Your task to perform on an android device: What's on my calendar today? Image 0: 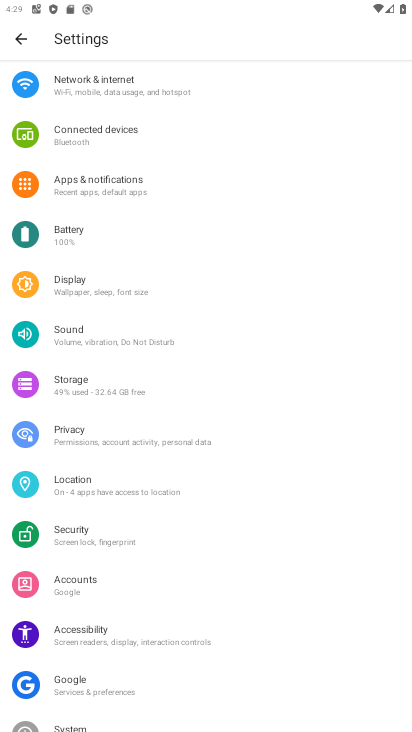
Step 0: press home button
Your task to perform on an android device: What's on my calendar today? Image 1: 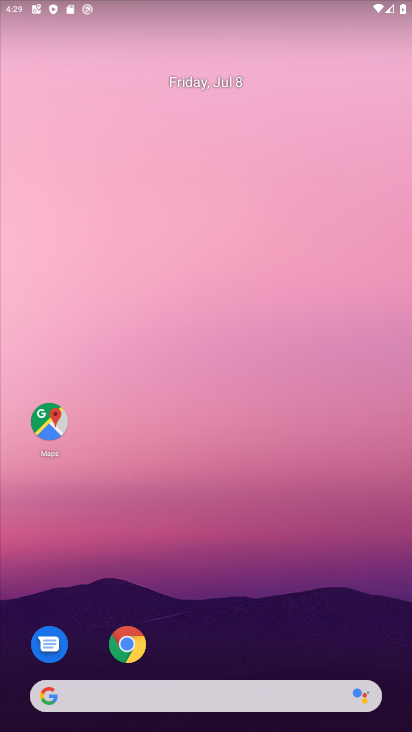
Step 1: drag from (213, 658) to (217, 106)
Your task to perform on an android device: What's on my calendar today? Image 2: 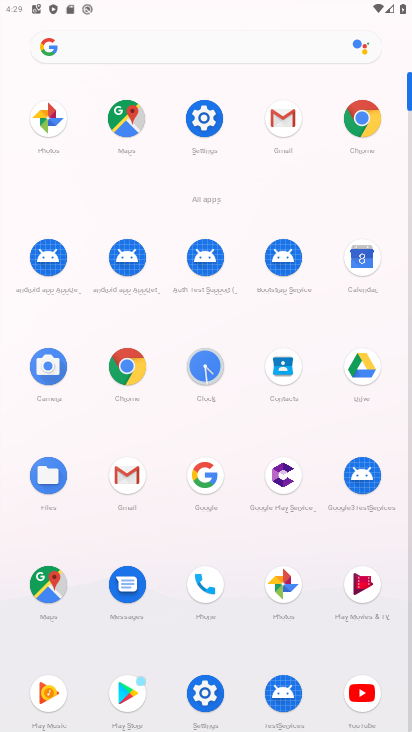
Step 2: click (364, 257)
Your task to perform on an android device: What's on my calendar today? Image 3: 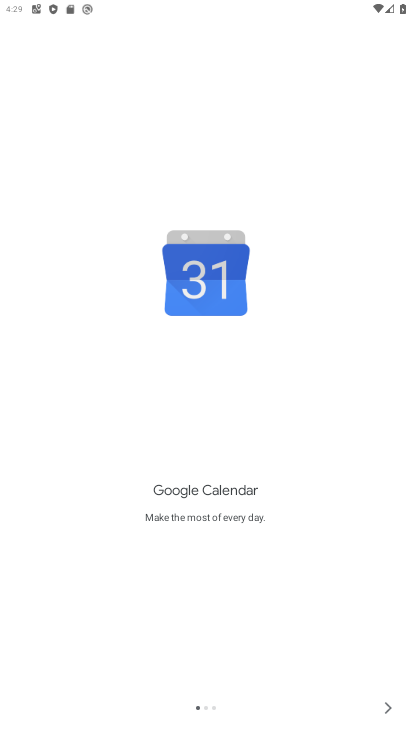
Step 3: click (383, 706)
Your task to perform on an android device: What's on my calendar today? Image 4: 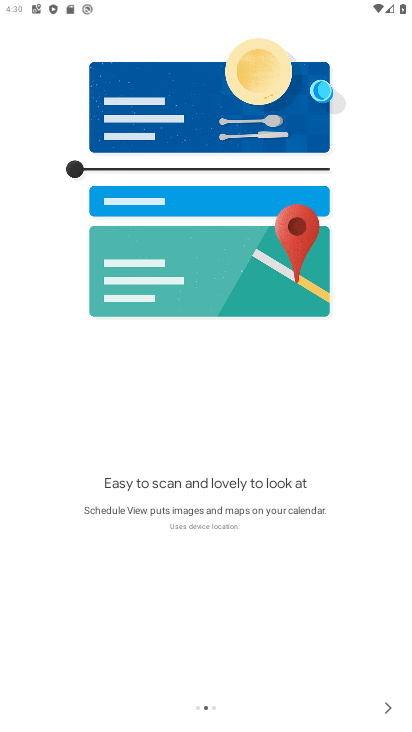
Step 4: click (384, 706)
Your task to perform on an android device: What's on my calendar today? Image 5: 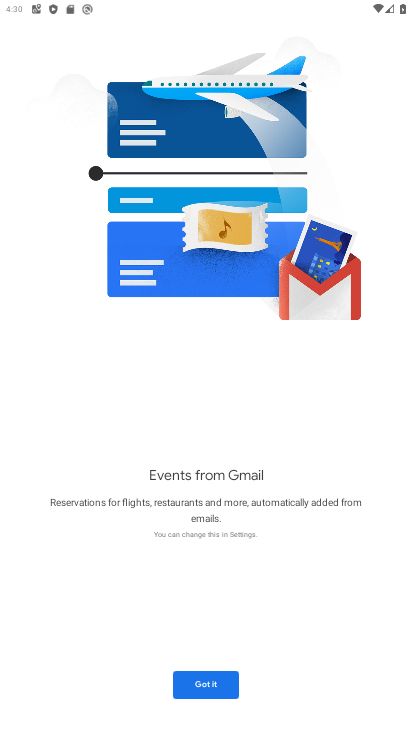
Step 5: click (206, 680)
Your task to perform on an android device: What's on my calendar today? Image 6: 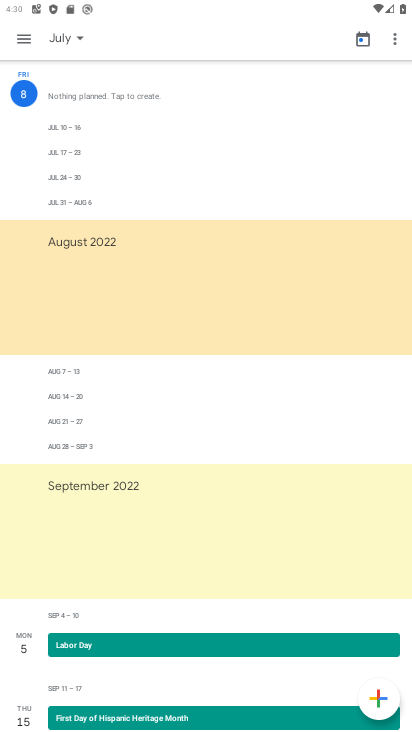
Step 6: click (28, 32)
Your task to perform on an android device: What's on my calendar today? Image 7: 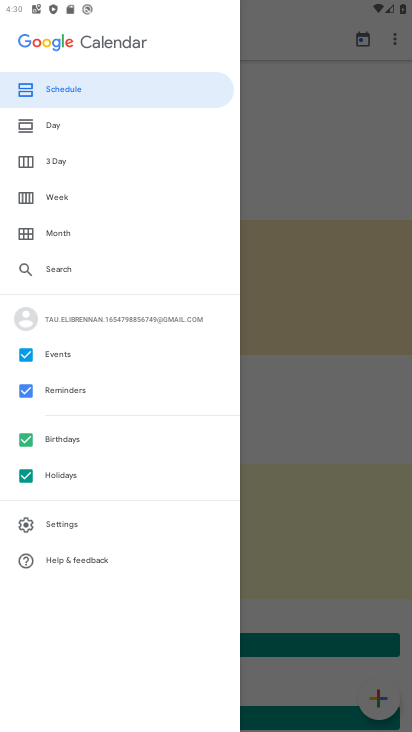
Step 7: click (24, 386)
Your task to perform on an android device: What's on my calendar today? Image 8: 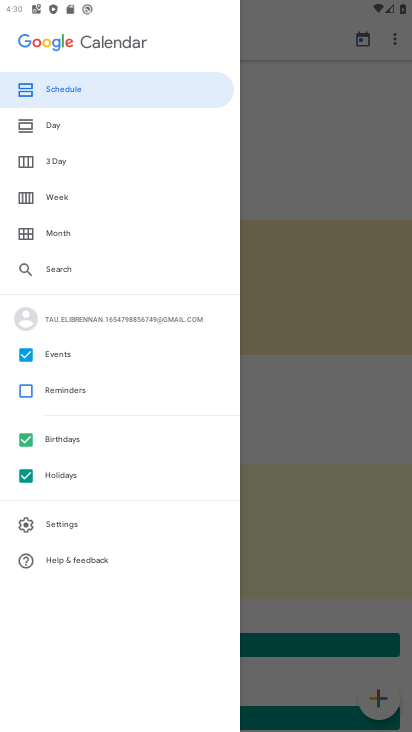
Step 8: click (21, 439)
Your task to perform on an android device: What's on my calendar today? Image 9: 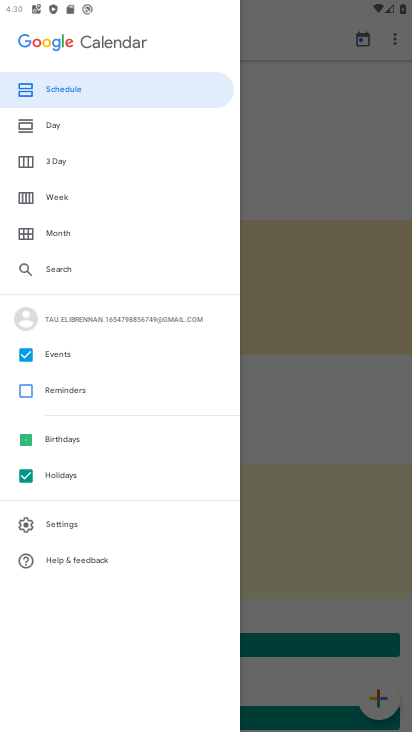
Step 9: click (28, 477)
Your task to perform on an android device: What's on my calendar today? Image 10: 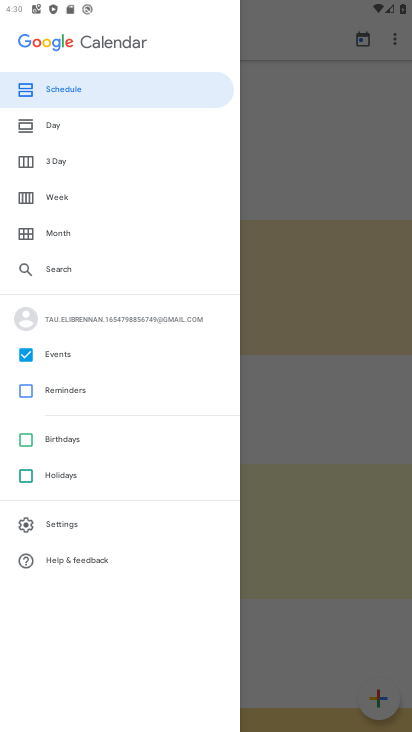
Step 10: click (43, 121)
Your task to perform on an android device: What's on my calendar today? Image 11: 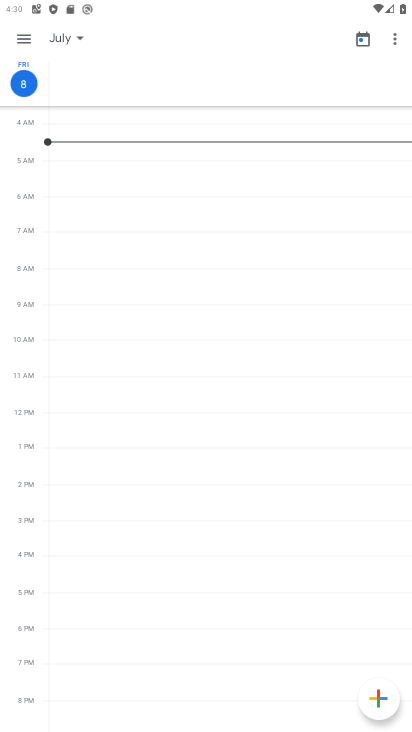
Step 11: task complete